Your task to perform on an android device: add a contact in the contacts app Image 0: 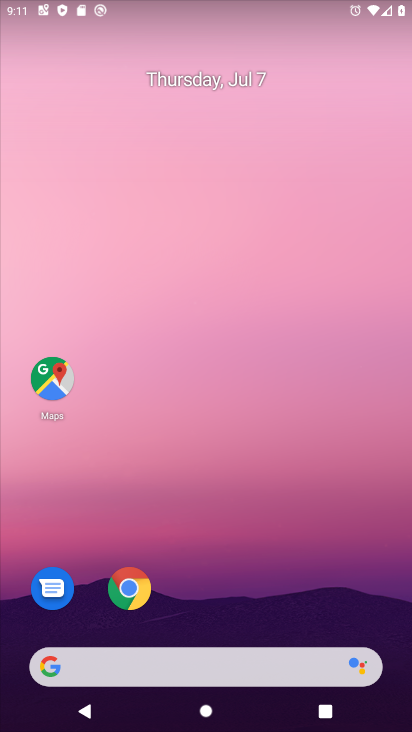
Step 0: press home button
Your task to perform on an android device: add a contact in the contacts app Image 1: 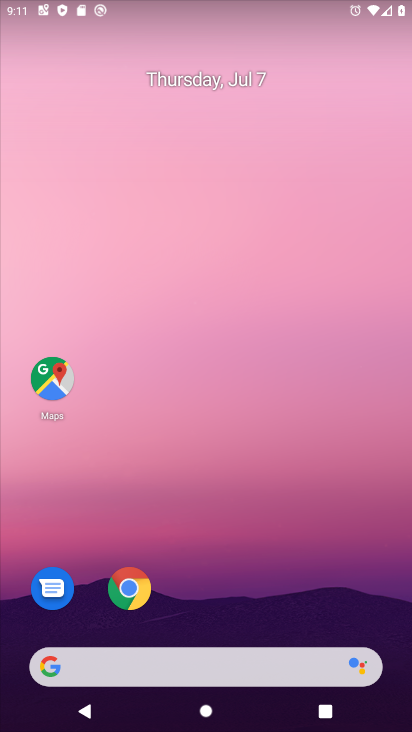
Step 1: drag from (217, 618) to (225, 75)
Your task to perform on an android device: add a contact in the contacts app Image 2: 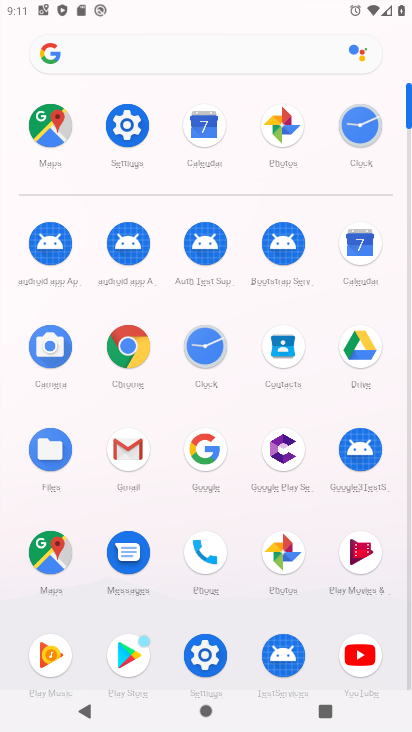
Step 2: click (283, 342)
Your task to perform on an android device: add a contact in the contacts app Image 3: 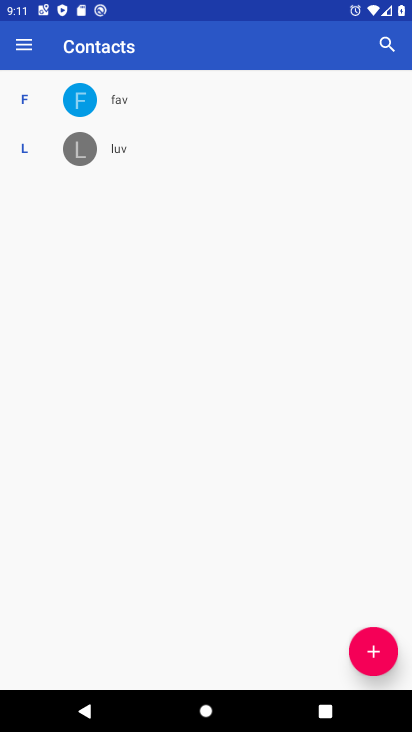
Step 3: click (369, 655)
Your task to perform on an android device: add a contact in the contacts app Image 4: 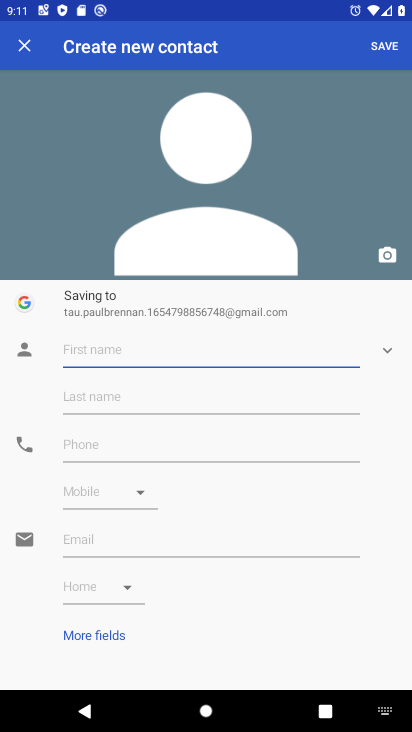
Step 4: click (107, 344)
Your task to perform on an android device: add a contact in the contacts app Image 5: 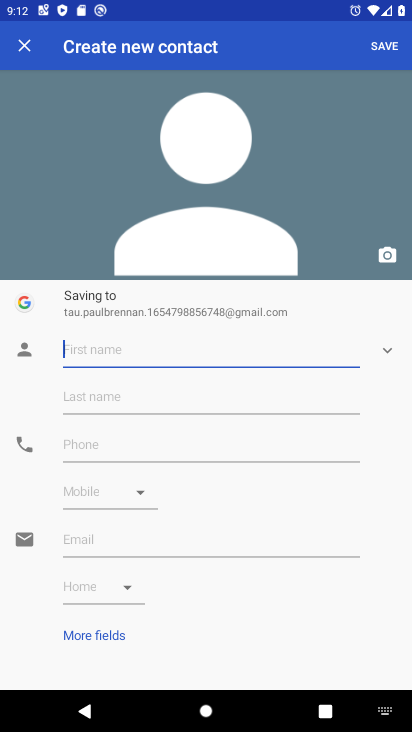
Step 5: type "APRNKT"
Your task to perform on an android device: add a contact in the contacts app Image 6: 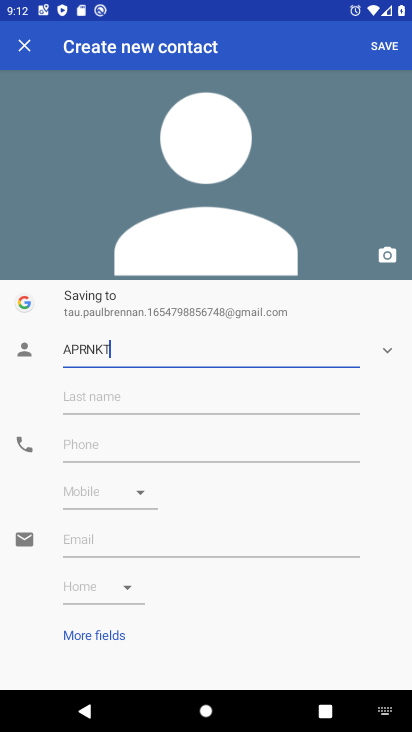
Step 6: click (109, 393)
Your task to perform on an android device: add a contact in the contacts app Image 7: 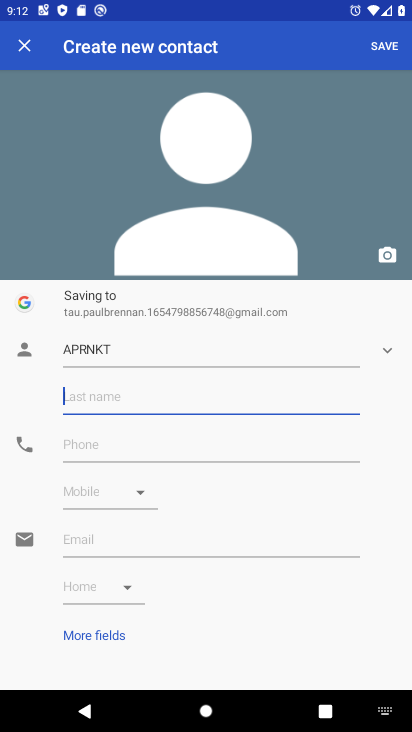
Step 7: type "SRGPTA"
Your task to perform on an android device: add a contact in the contacts app Image 8: 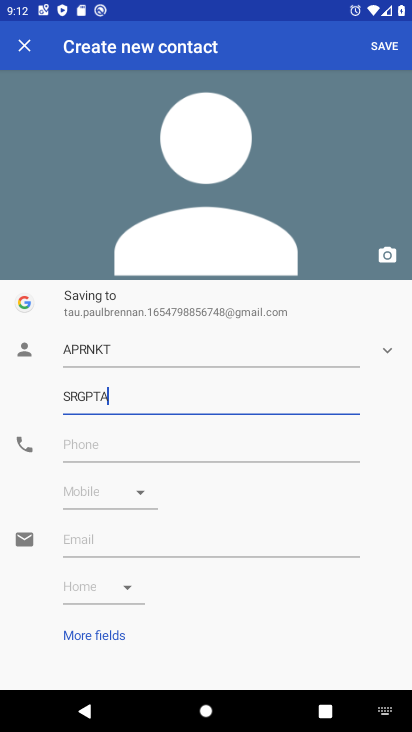
Step 8: type ""
Your task to perform on an android device: add a contact in the contacts app Image 9: 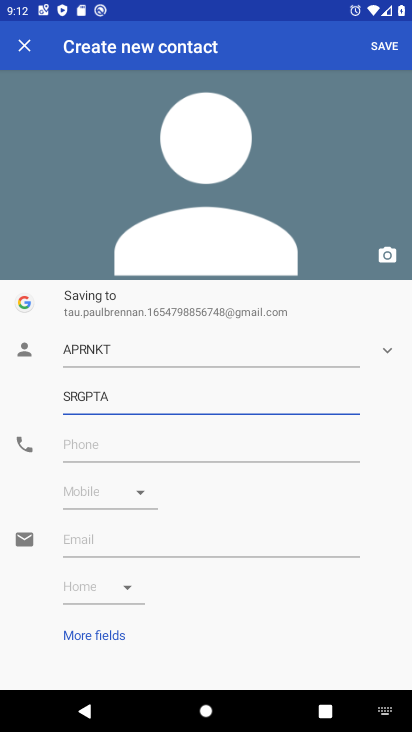
Step 9: click (378, 53)
Your task to perform on an android device: add a contact in the contacts app Image 10: 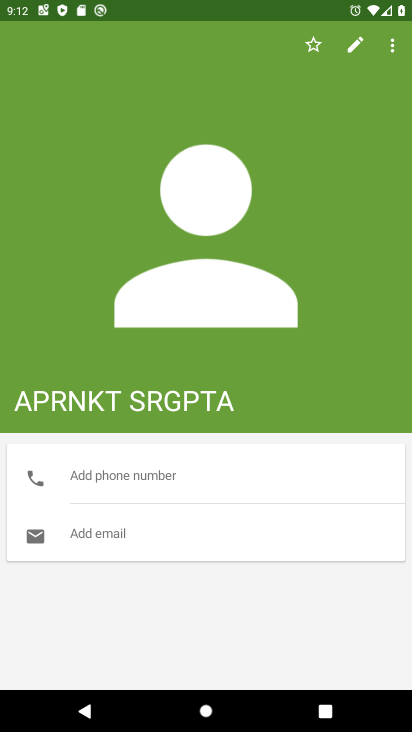
Step 10: task complete